Your task to perform on an android device: turn pop-ups on in chrome Image 0: 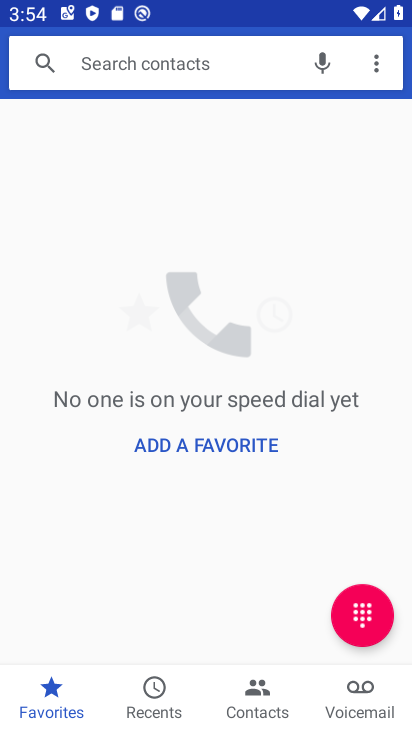
Step 0: press home button
Your task to perform on an android device: turn pop-ups on in chrome Image 1: 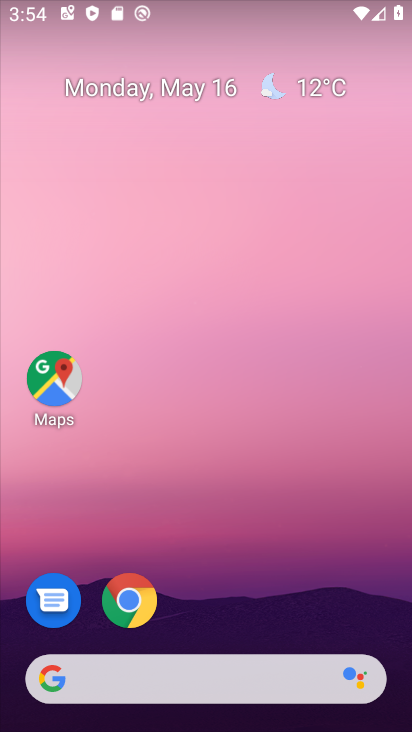
Step 1: click (135, 606)
Your task to perform on an android device: turn pop-ups on in chrome Image 2: 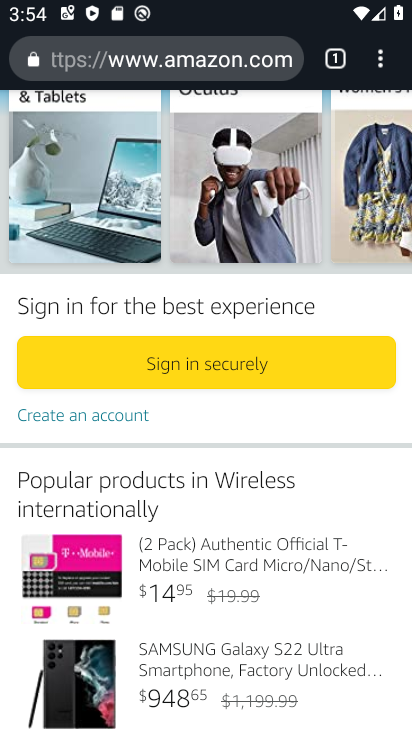
Step 2: click (381, 69)
Your task to perform on an android device: turn pop-ups on in chrome Image 3: 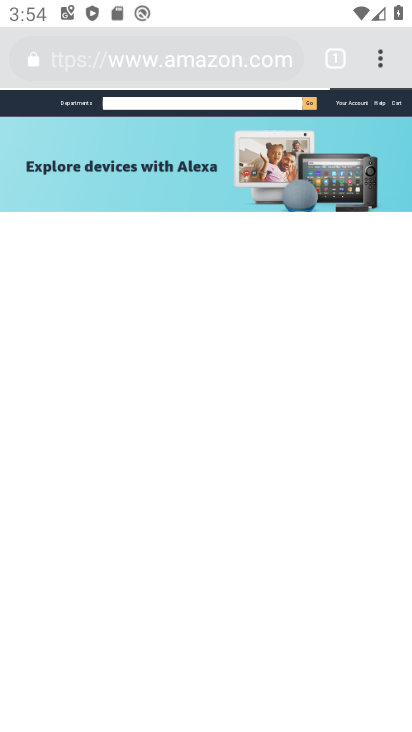
Step 3: click (381, 69)
Your task to perform on an android device: turn pop-ups on in chrome Image 4: 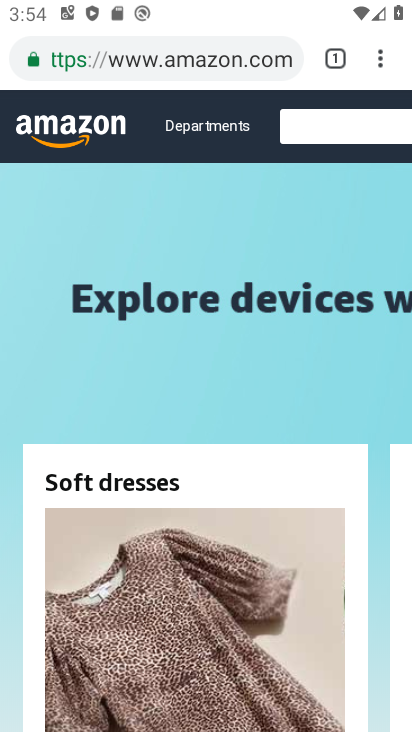
Step 4: click (375, 62)
Your task to perform on an android device: turn pop-ups on in chrome Image 5: 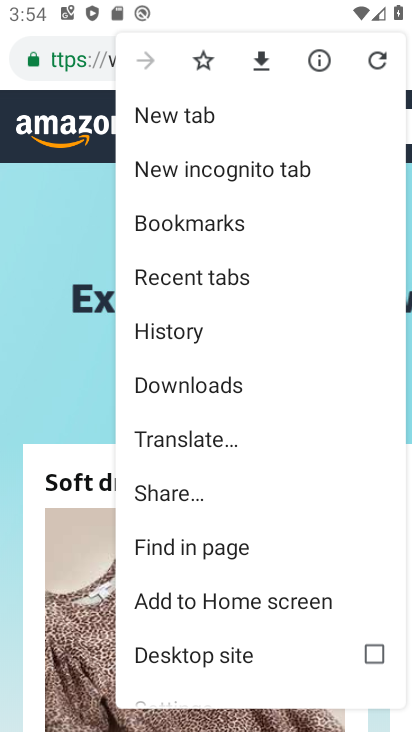
Step 5: drag from (225, 637) to (225, 304)
Your task to perform on an android device: turn pop-ups on in chrome Image 6: 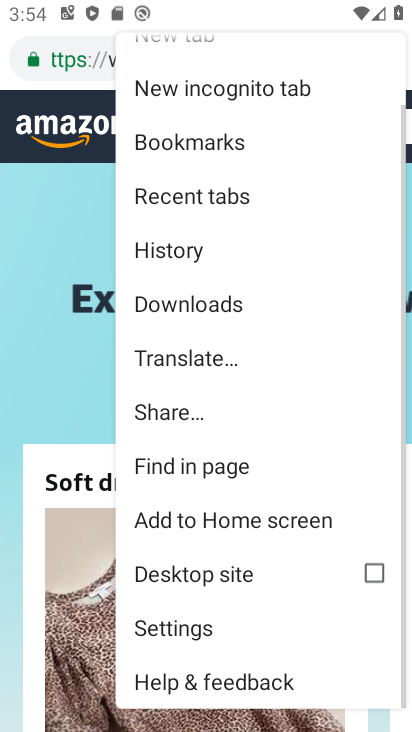
Step 6: click (166, 638)
Your task to perform on an android device: turn pop-ups on in chrome Image 7: 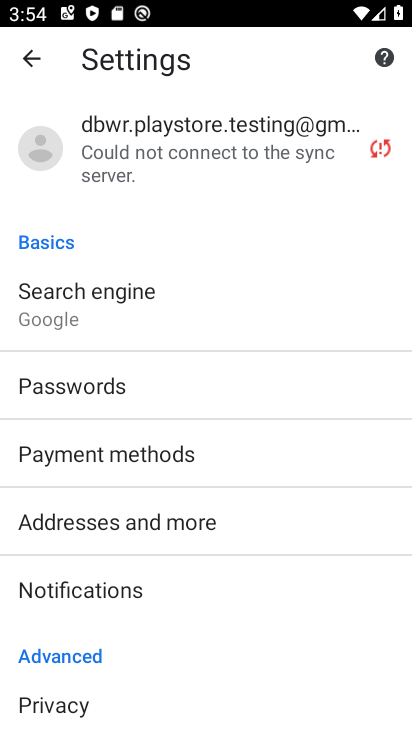
Step 7: drag from (152, 670) to (198, 417)
Your task to perform on an android device: turn pop-ups on in chrome Image 8: 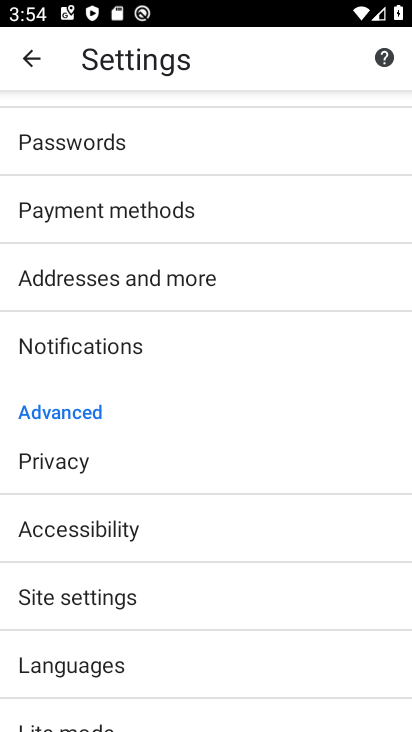
Step 8: click (131, 597)
Your task to perform on an android device: turn pop-ups on in chrome Image 9: 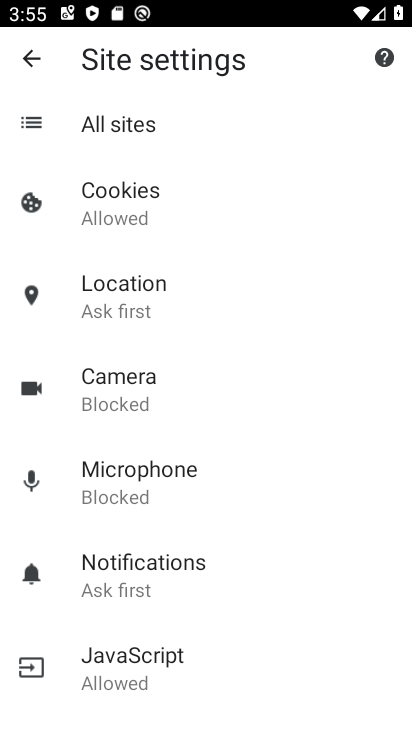
Step 9: drag from (130, 690) to (152, 456)
Your task to perform on an android device: turn pop-ups on in chrome Image 10: 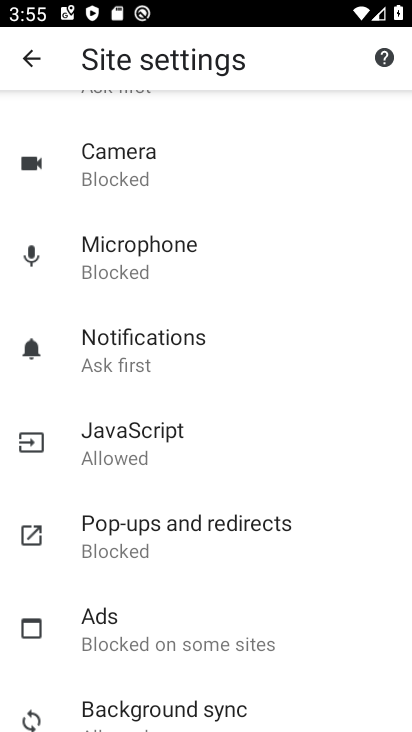
Step 10: click (159, 520)
Your task to perform on an android device: turn pop-ups on in chrome Image 11: 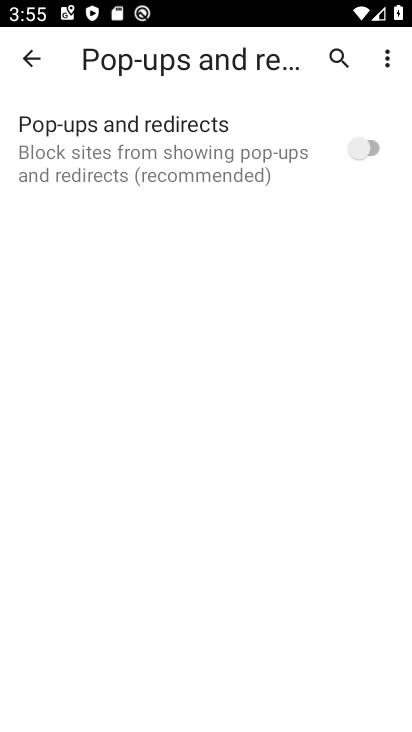
Step 11: click (365, 141)
Your task to perform on an android device: turn pop-ups on in chrome Image 12: 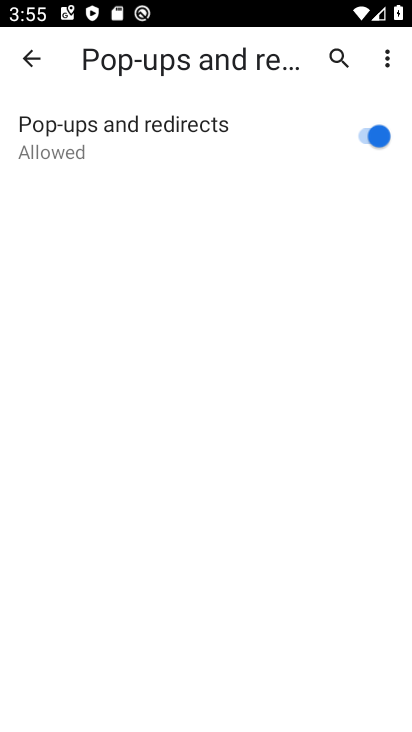
Step 12: task complete